Your task to perform on an android device: Open settings on Google Maps Image 0: 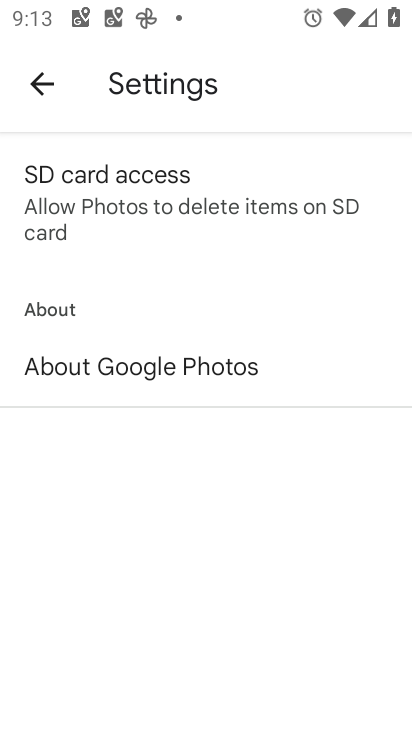
Step 0: press home button
Your task to perform on an android device: Open settings on Google Maps Image 1: 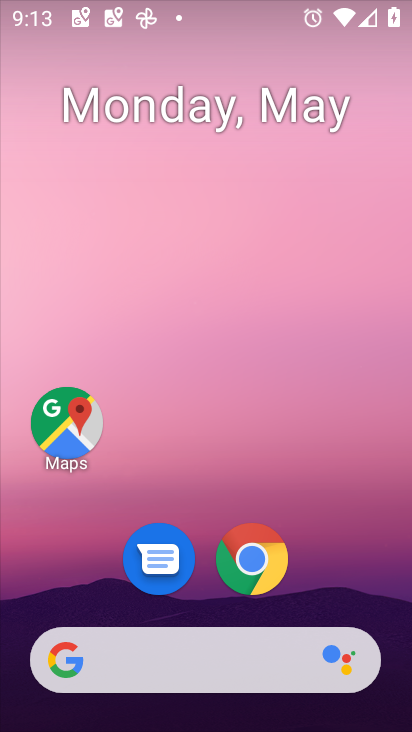
Step 1: drag from (394, 634) to (278, 127)
Your task to perform on an android device: Open settings on Google Maps Image 2: 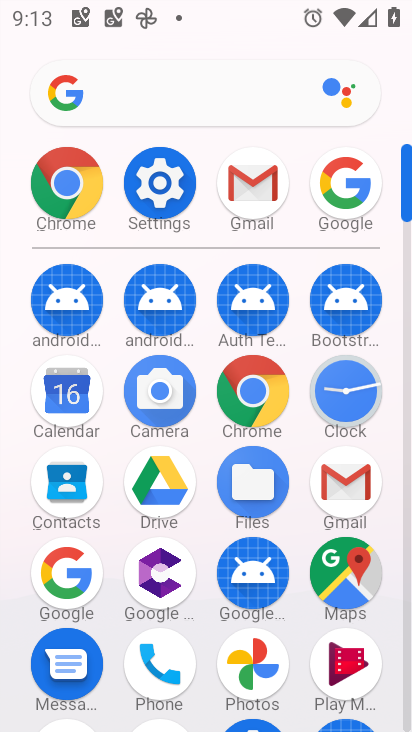
Step 2: click (352, 566)
Your task to perform on an android device: Open settings on Google Maps Image 3: 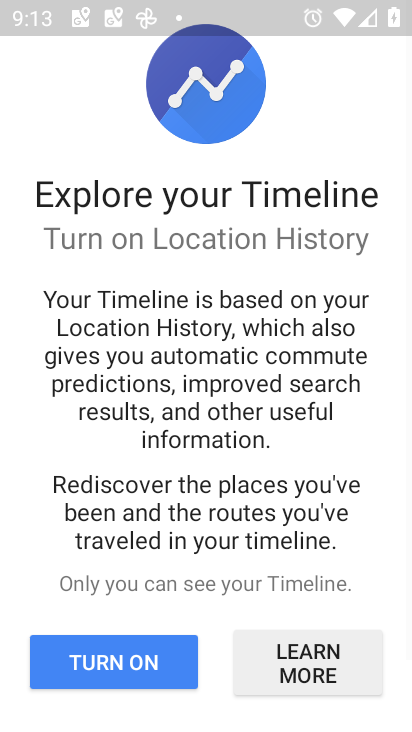
Step 3: press back button
Your task to perform on an android device: Open settings on Google Maps Image 4: 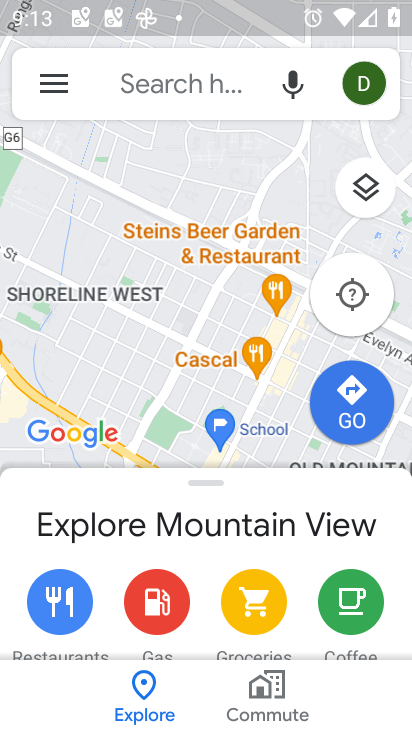
Step 4: click (47, 87)
Your task to perform on an android device: Open settings on Google Maps Image 5: 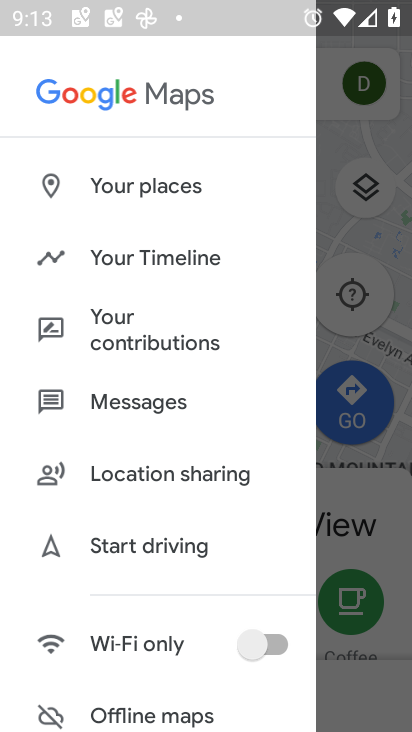
Step 5: drag from (142, 675) to (181, 298)
Your task to perform on an android device: Open settings on Google Maps Image 6: 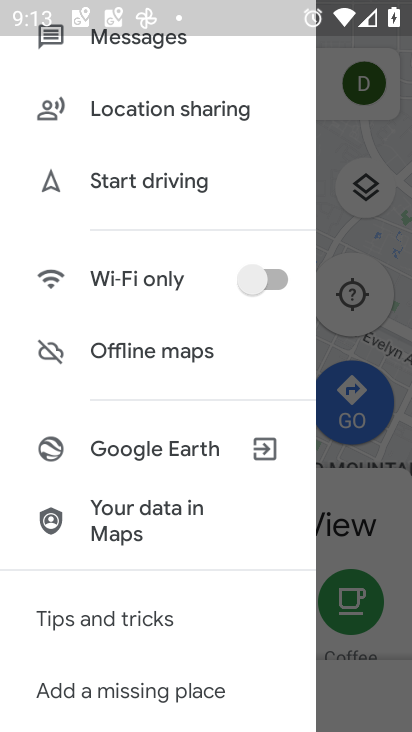
Step 6: drag from (163, 640) to (153, 170)
Your task to perform on an android device: Open settings on Google Maps Image 7: 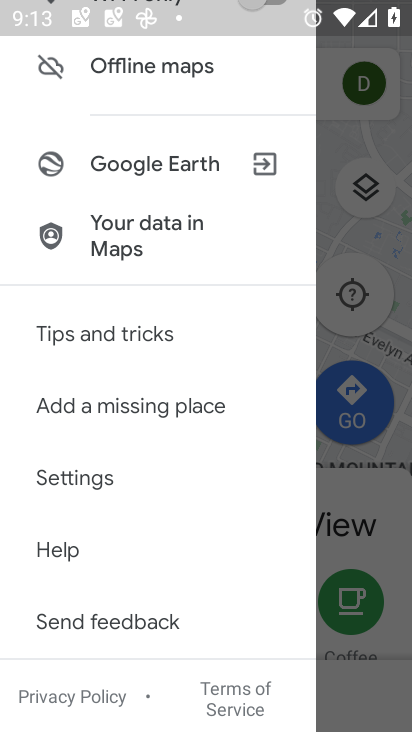
Step 7: click (107, 476)
Your task to perform on an android device: Open settings on Google Maps Image 8: 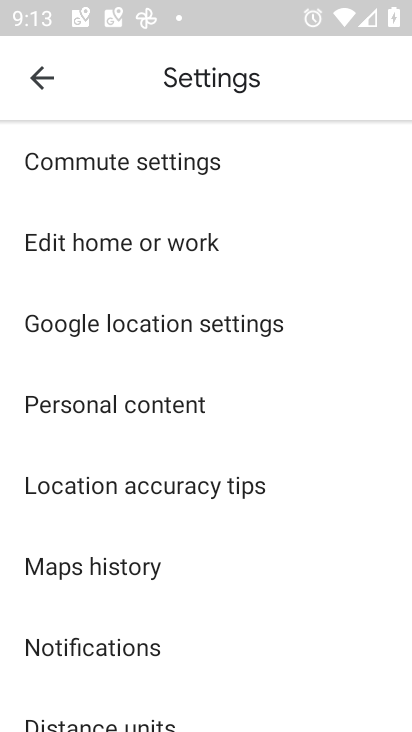
Step 8: task complete